Your task to perform on an android device: add a contact in the contacts app Image 0: 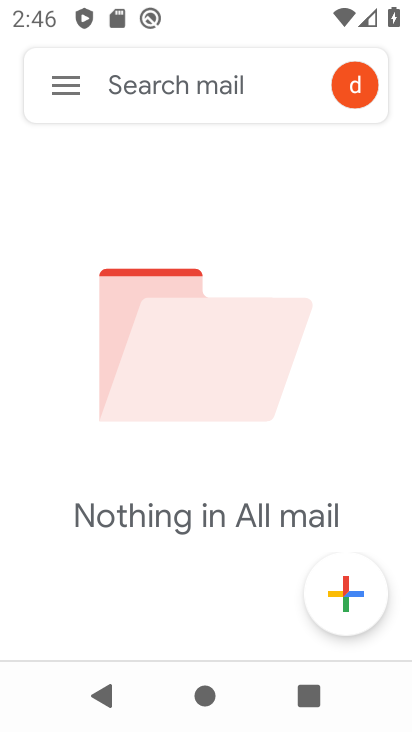
Step 0: press back button
Your task to perform on an android device: add a contact in the contacts app Image 1: 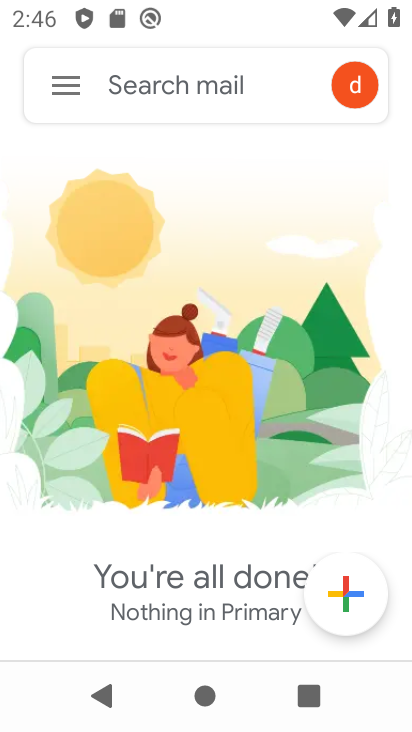
Step 1: press back button
Your task to perform on an android device: add a contact in the contacts app Image 2: 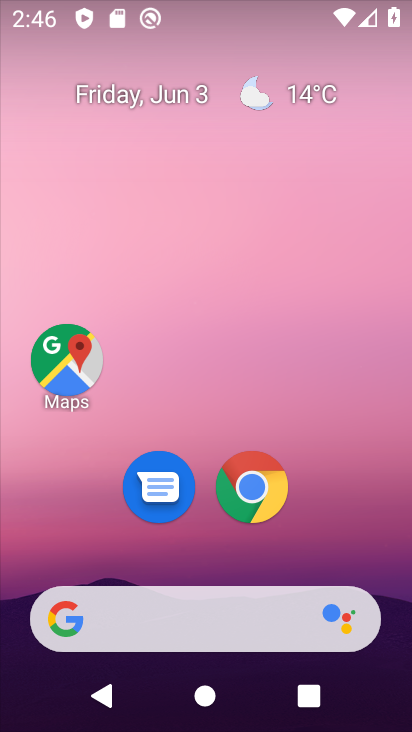
Step 2: drag from (222, 526) to (266, 18)
Your task to perform on an android device: add a contact in the contacts app Image 3: 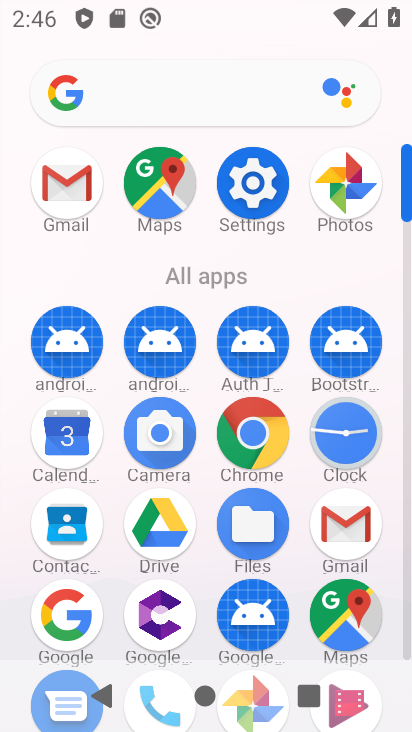
Step 3: click (58, 517)
Your task to perform on an android device: add a contact in the contacts app Image 4: 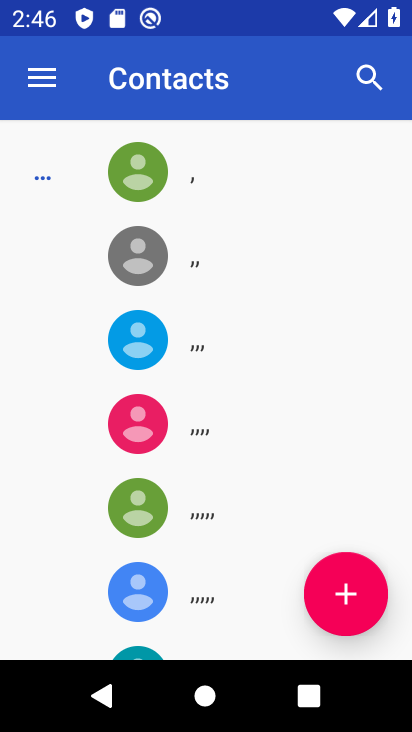
Step 4: click (330, 607)
Your task to perform on an android device: add a contact in the contacts app Image 5: 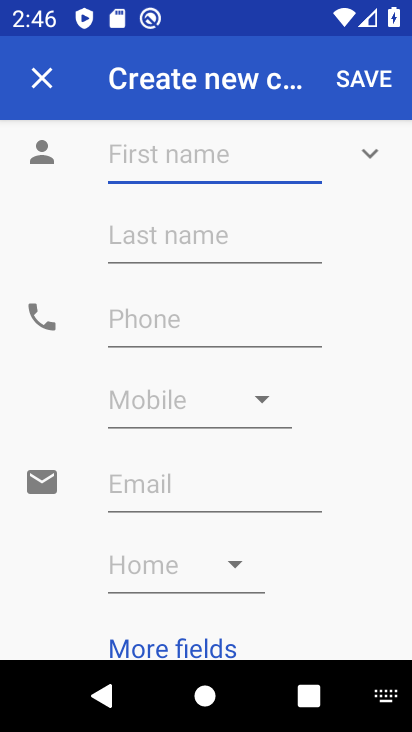
Step 5: type "bbfbg"
Your task to perform on an android device: add a contact in the contacts app Image 6: 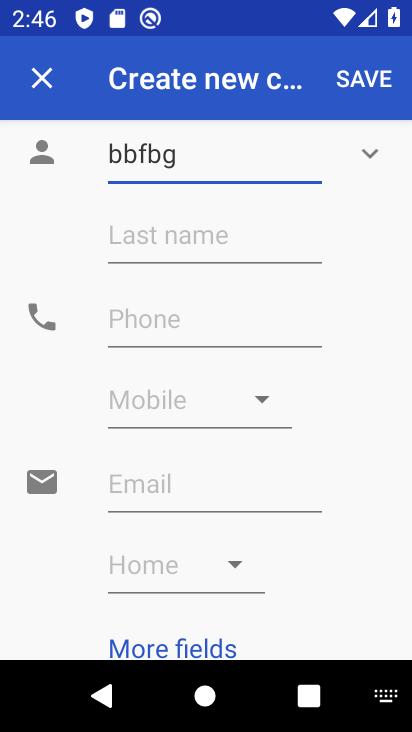
Step 6: click (141, 319)
Your task to perform on an android device: add a contact in the contacts app Image 7: 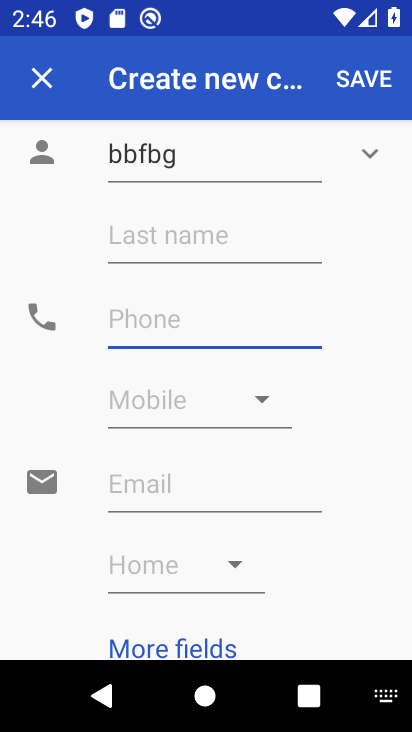
Step 7: type "35654"
Your task to perform on an android device: add a contact in the contacts app Image 8: 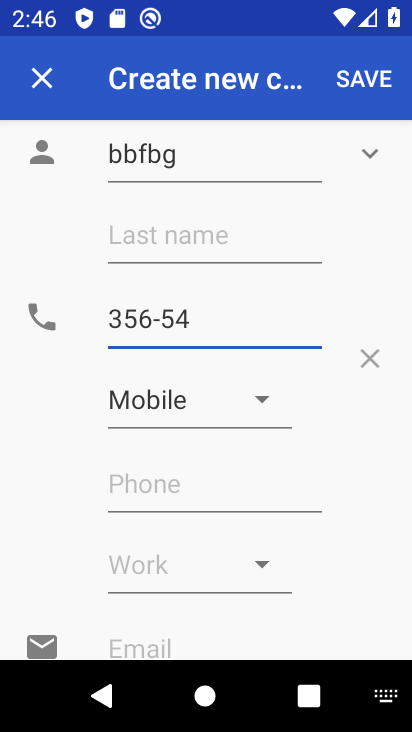
Step 8: click (371, 79)
Your task to perform on an android device: add a contact in the contacts app Image 9: 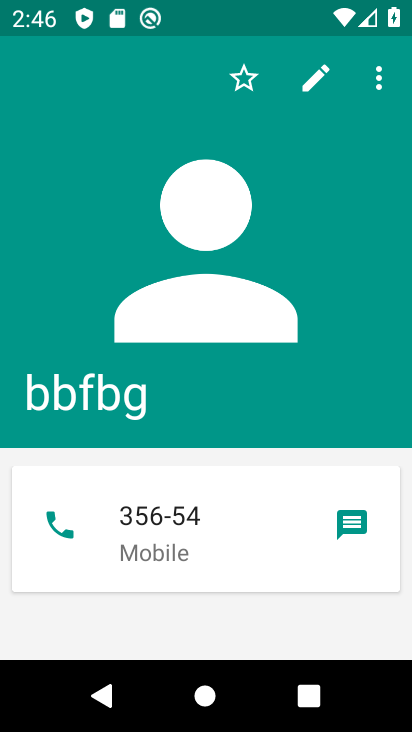
Step 9: task complete